Your task to perform on an android device: see creations saved in the google photos Image 0: 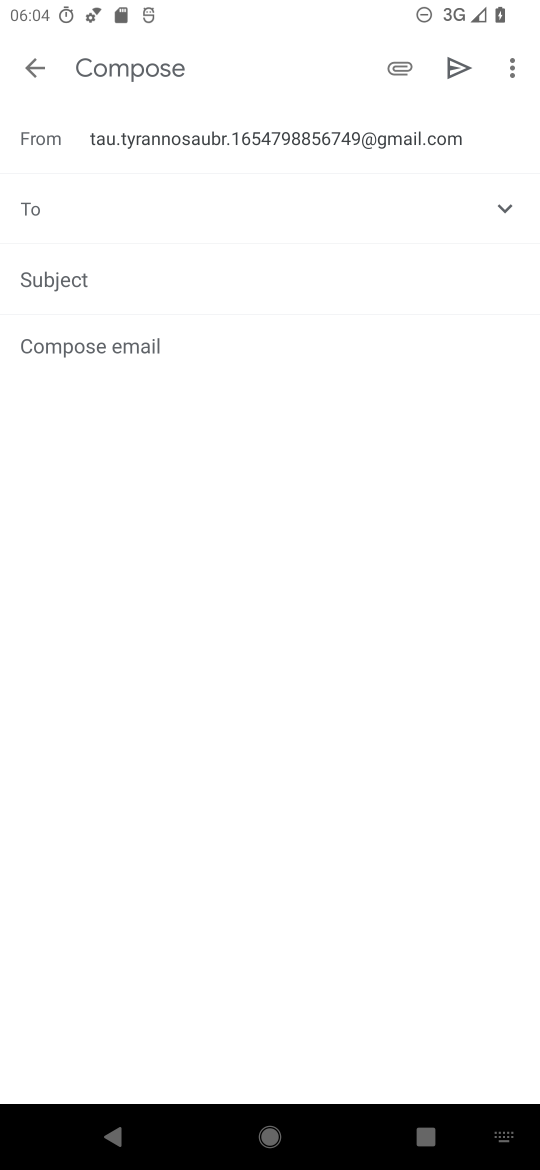
Step 0: press home button
Your task to perform on an android device: see creations saved in the google photos Image 1: 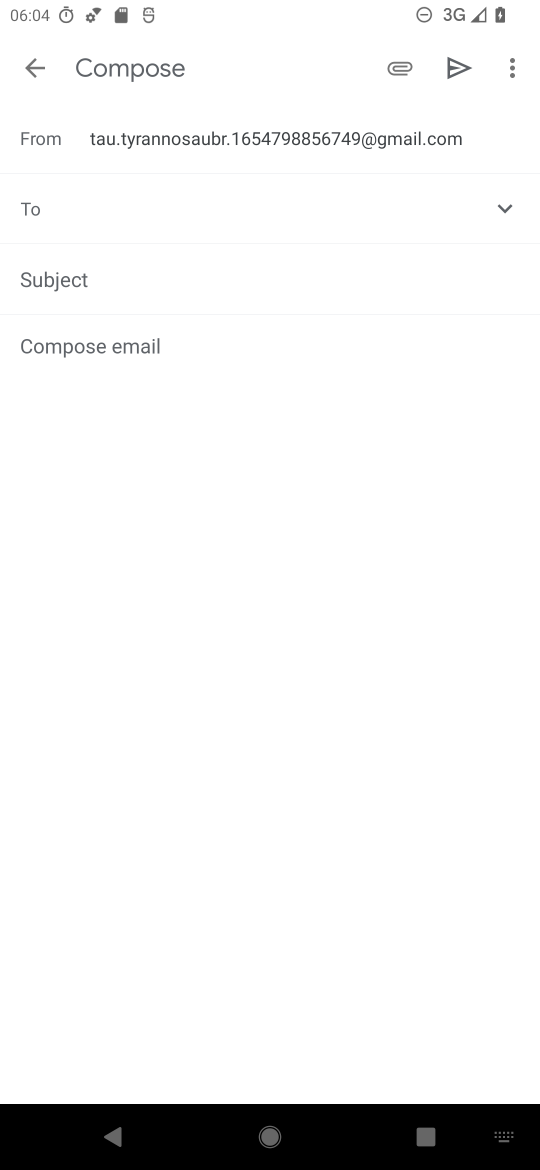
Step 1: press home button
Your task to perform on an android device: see creations saved in the google photos Image 2: 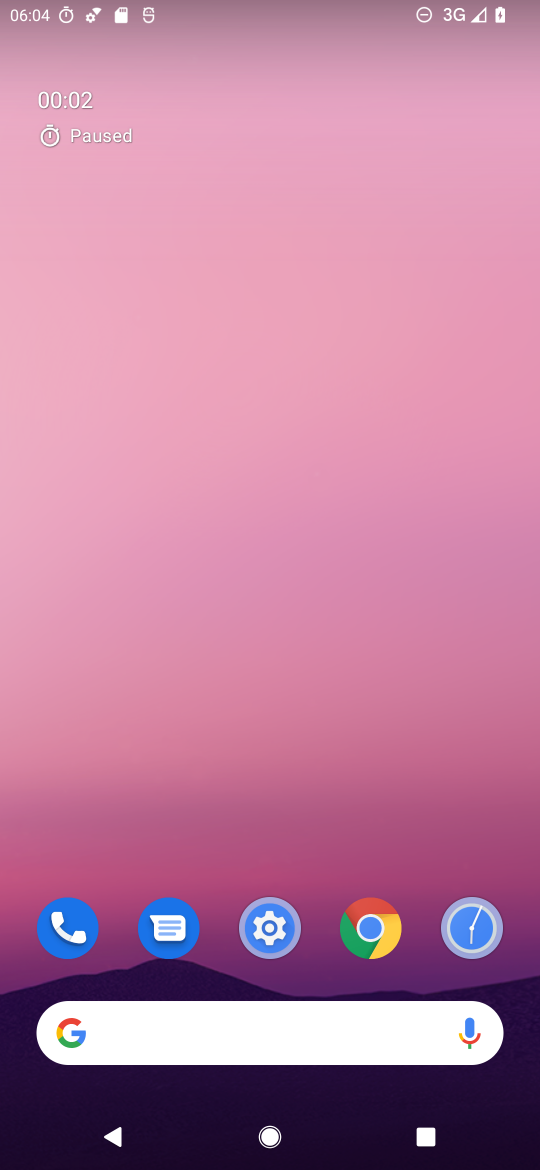
Step 2: drag from (365, 856) to (346, 2)
Your task to perform on an android device: see creations saved in the google photos Image 3: 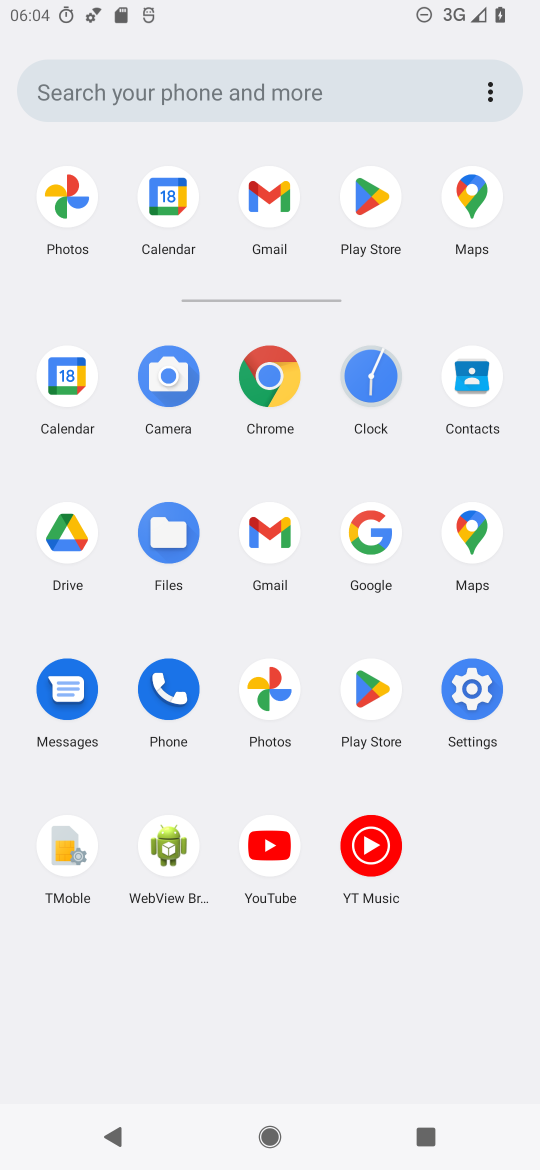
Step 3: click (251, 695)
Your task to perform on an android device: see creations saved in the google photos Image 4: 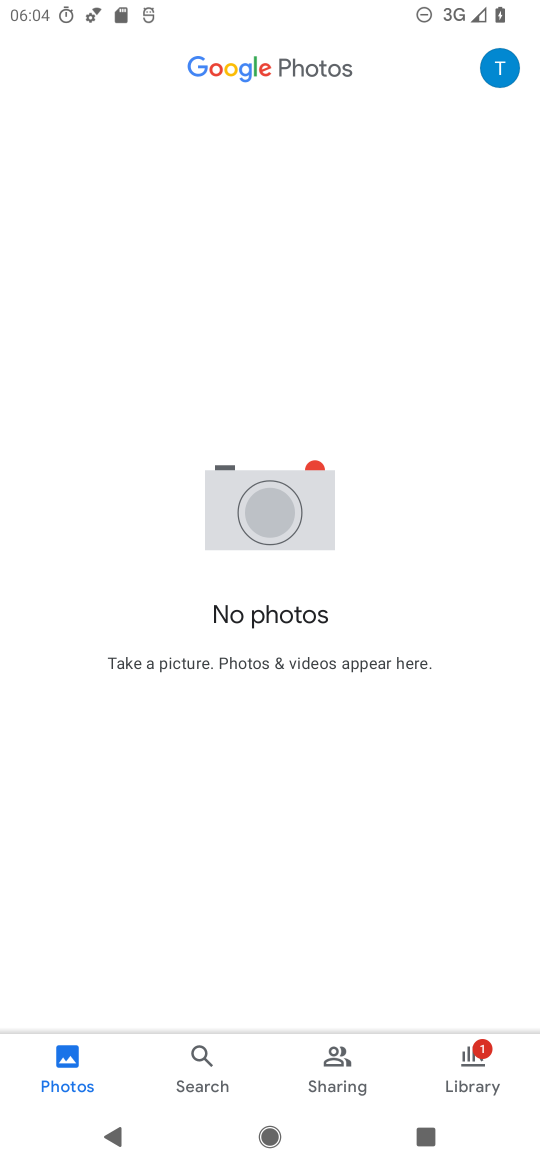
Step 4: click (505, 1052)
Your task to perform on an android device: see creations saved in the google photos Image 5: 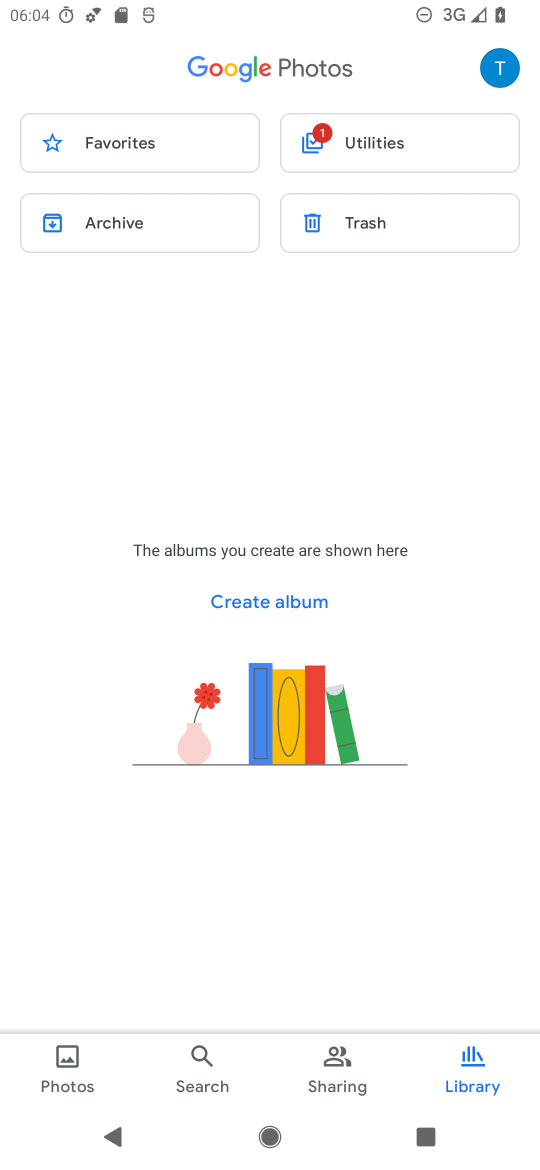
Step 5: task complete